Your task to perform on an android device: turn off airplane mode Image 0: 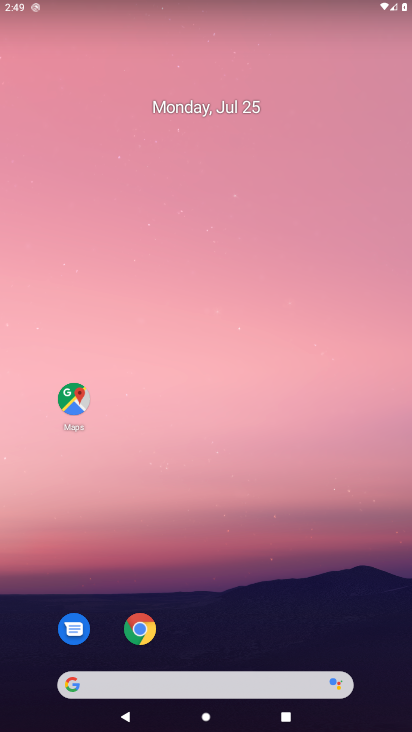
Step 0: drag from (15, 684) to (177, 344)
Your task to perform on an android device: turn off airplane mode Image 1: 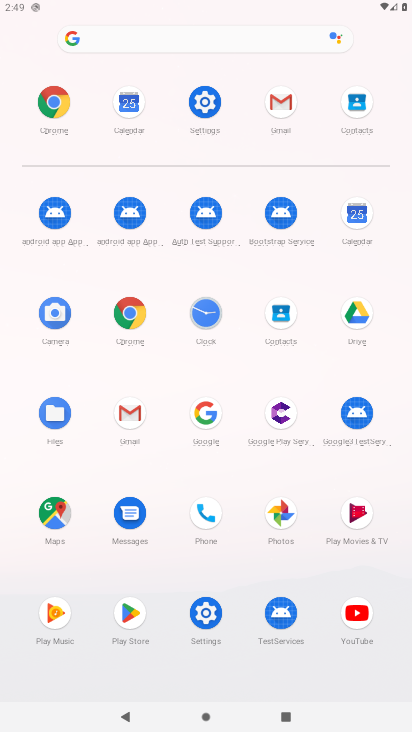
Step 1: click (227, 617)
Your task to perform on an android device: turn off airplane mode Image 2: 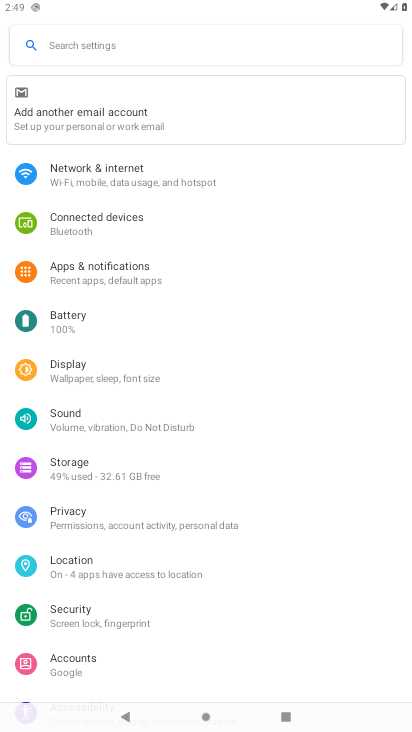
Step 2: click (94, 177)
Your task to perform on an android device: turn off airplane mode Image 3: 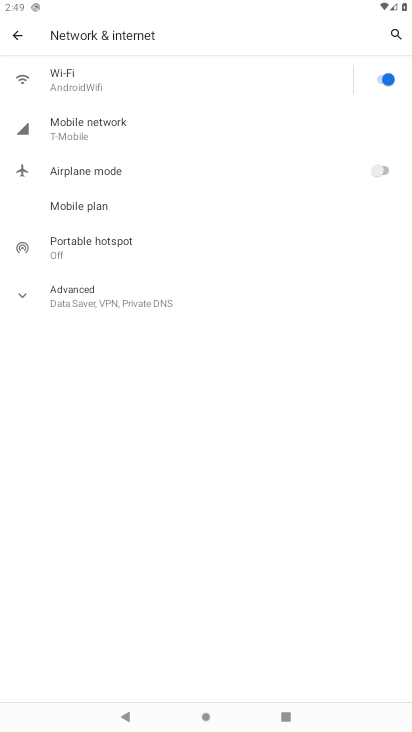
Step 3: task complete